Your task to perform on an android device: uninstall "Gboard" Image 0: 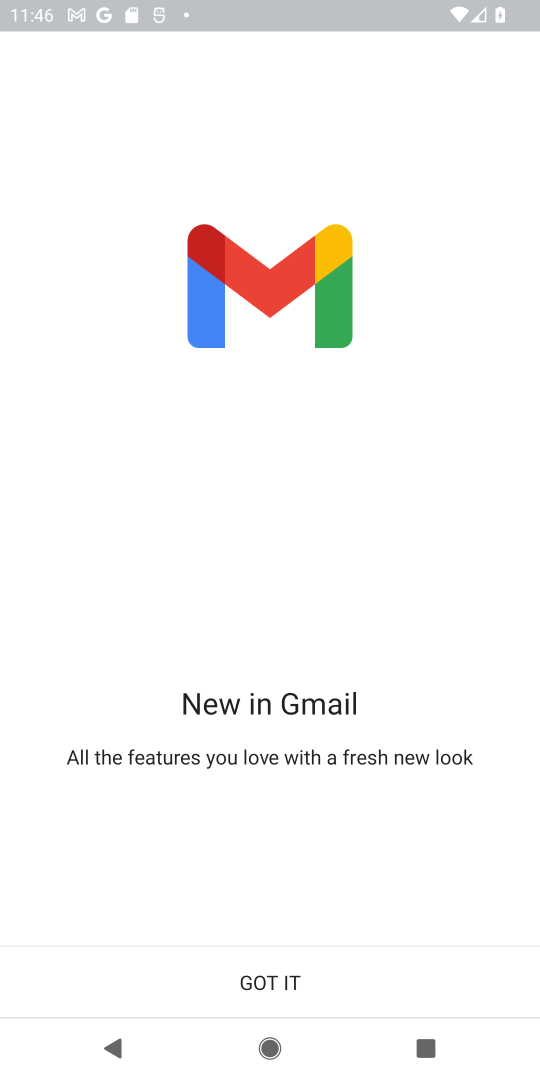
Step 0: press home button
Your task to perform on an android device: uninstall "Gboard" Image 1: 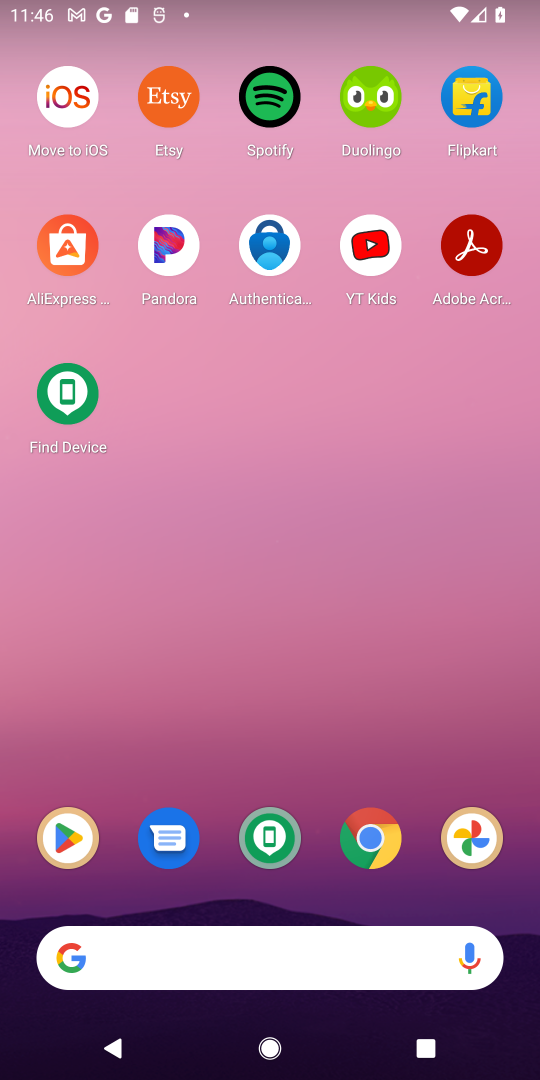
Step 1: click (63, 847)
Your task to perform on an android device: uninstall "Gboard" Image 2: 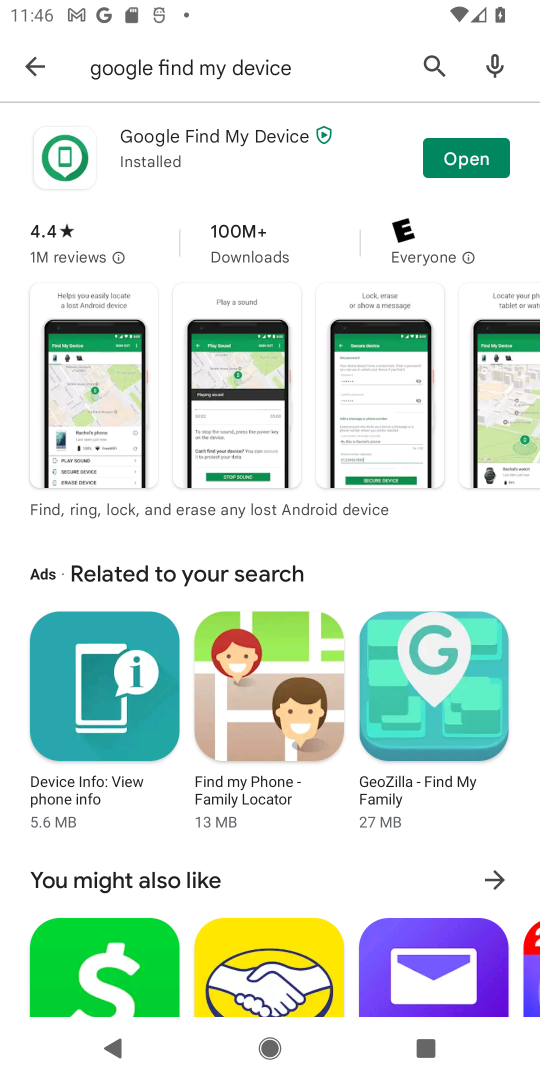
Step 2: click (430, 63)
Your task to perform on an android device: uninstall "Gboard" Image 3: 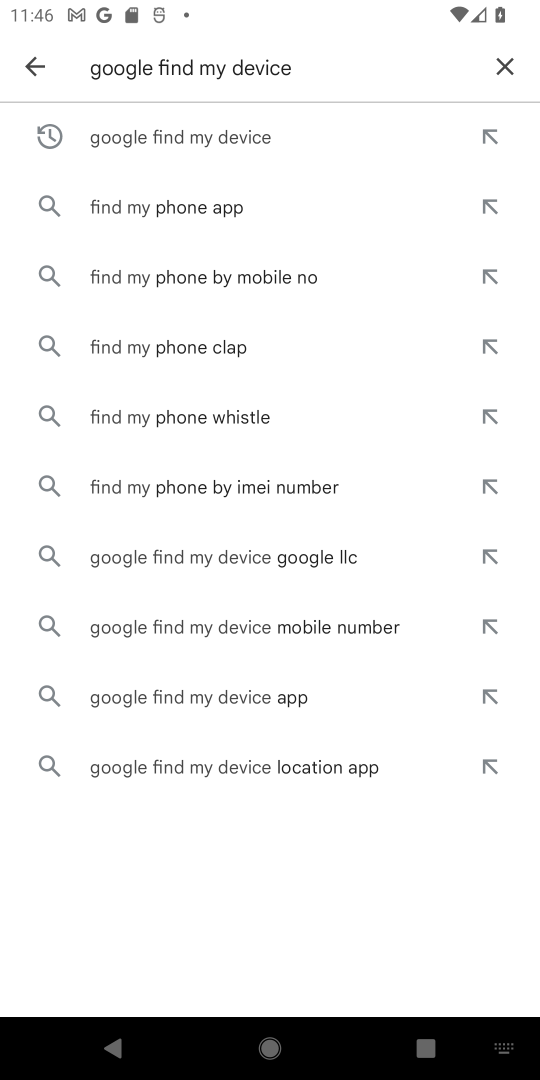
Step 3: click (498, 71)
Your task to perform on an android device: uninstall "Gboard" Image 4: 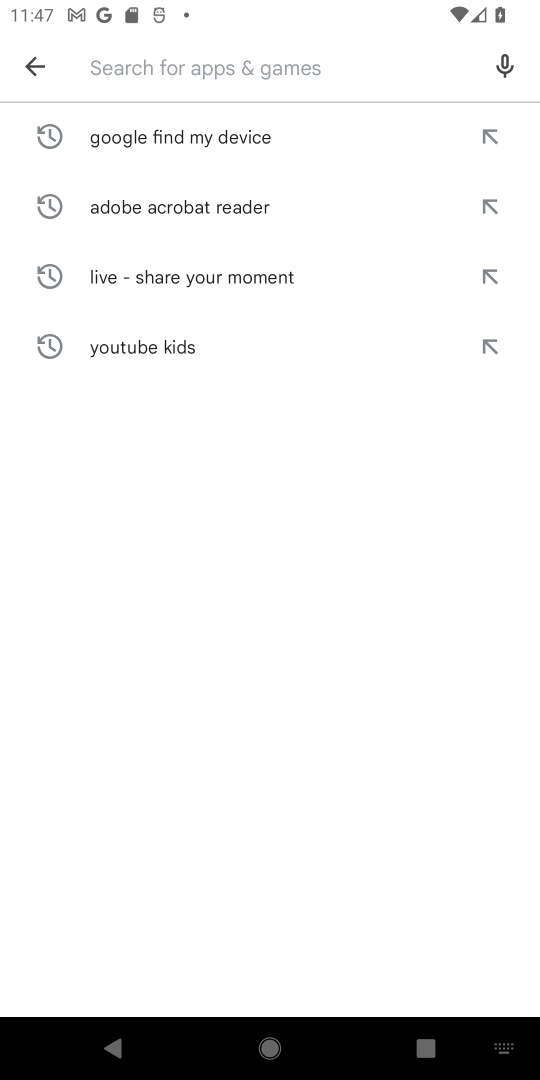
Step 4: type "Gboard"
Your task to perform on an android device: uninstall "Gboard" Image 5: 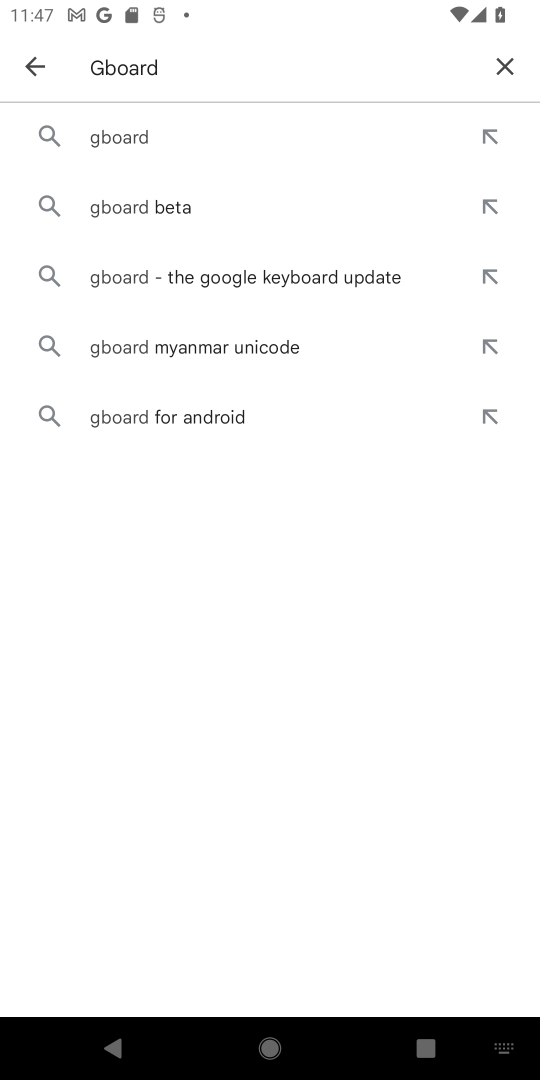
Step 5: click (162, 132)
Your task to perform on an android device: uninstall "Gboard" Image 6: 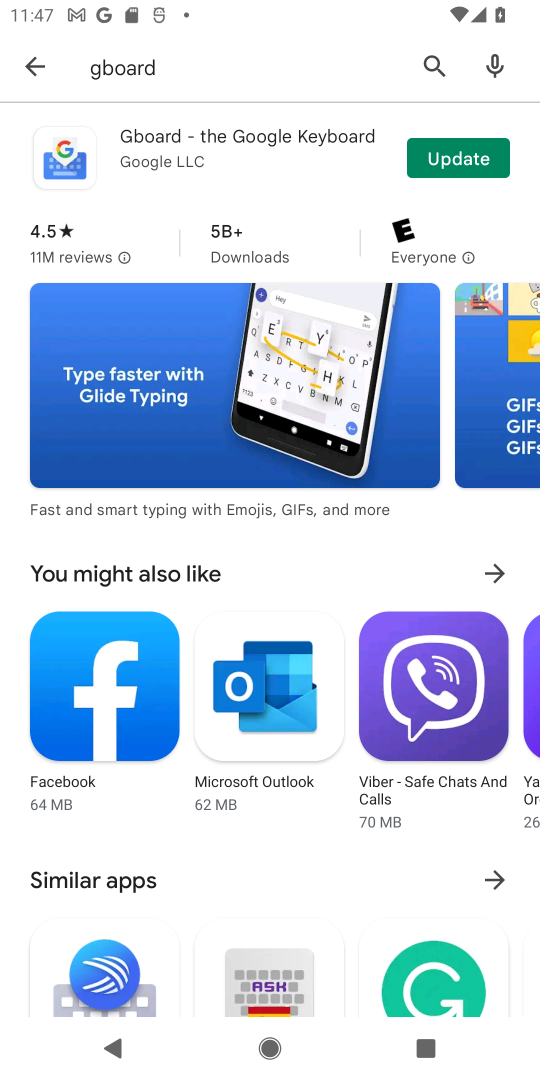
Step 6: click (241, 151)
Your task to perform on an android device: uninstall "Gboard" Image 7: 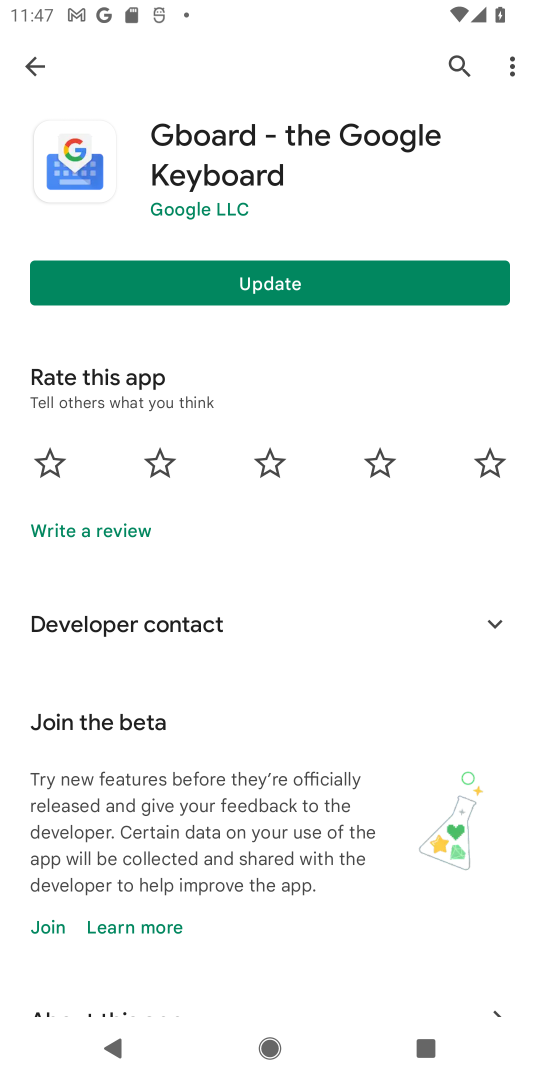
Step 7: task complete